Your task to perform on an android device: install app "Nova Launcher" Image 0: 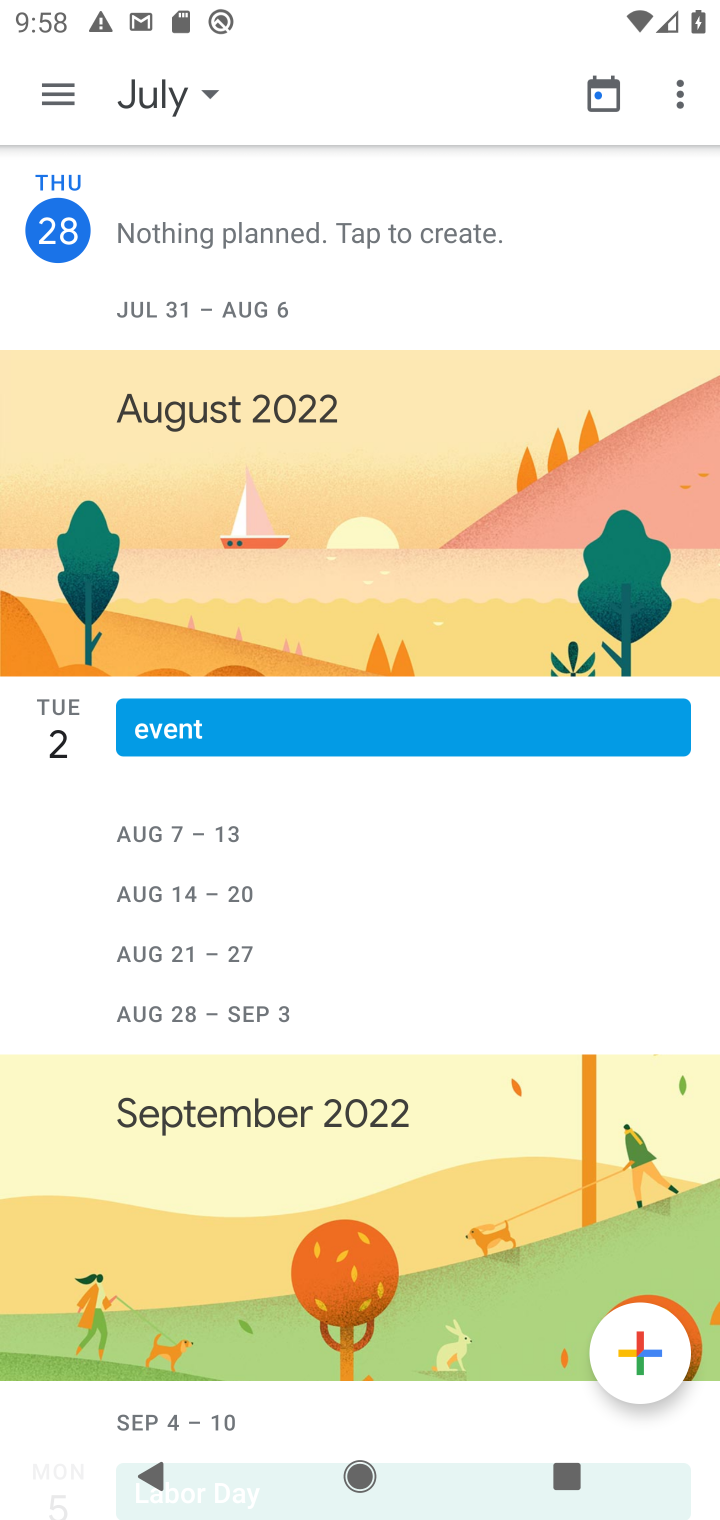
Step 0: press home button
Your task to perform on an android device: install app "Nova Launcher" Image 1: 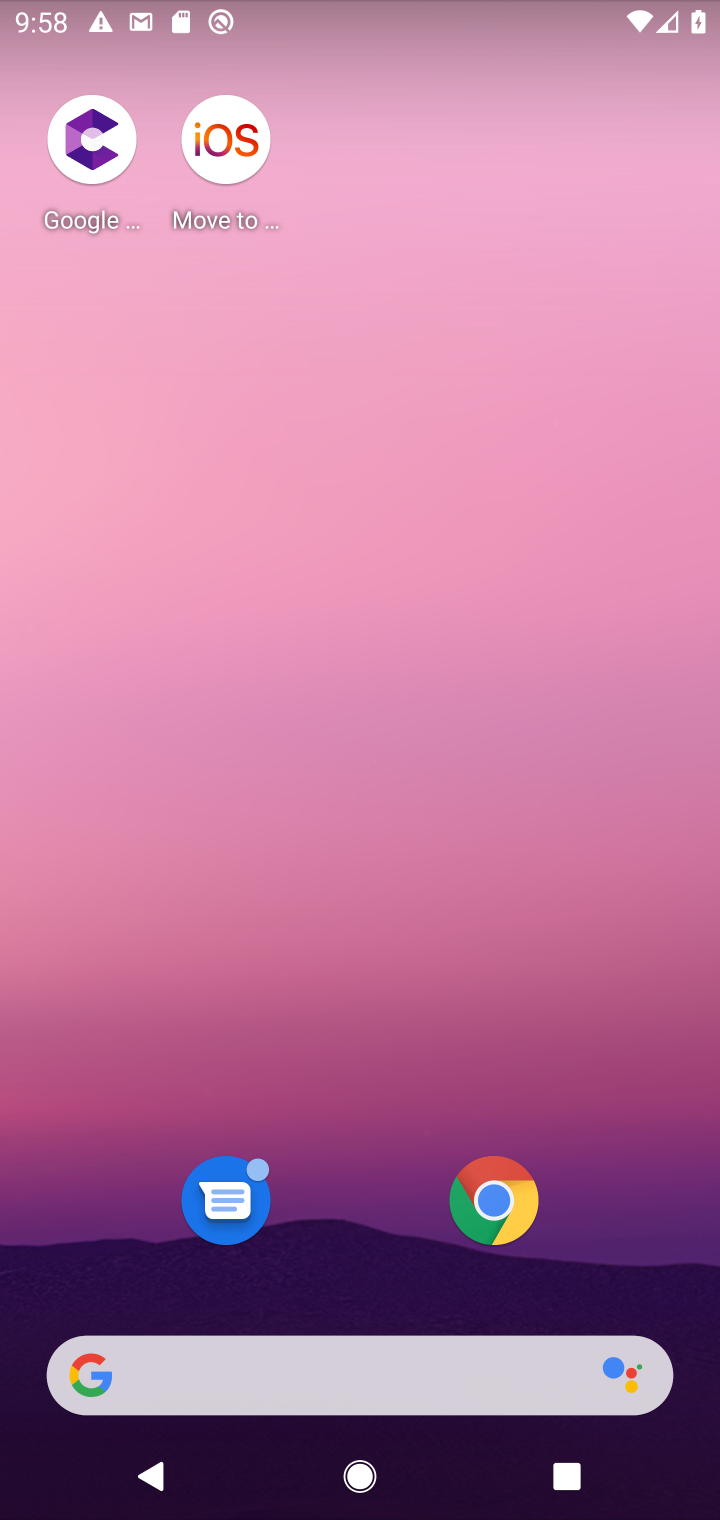
Step 1: press home button
Your task to perform on an android device: install app "Nova Launcher" Image 2: 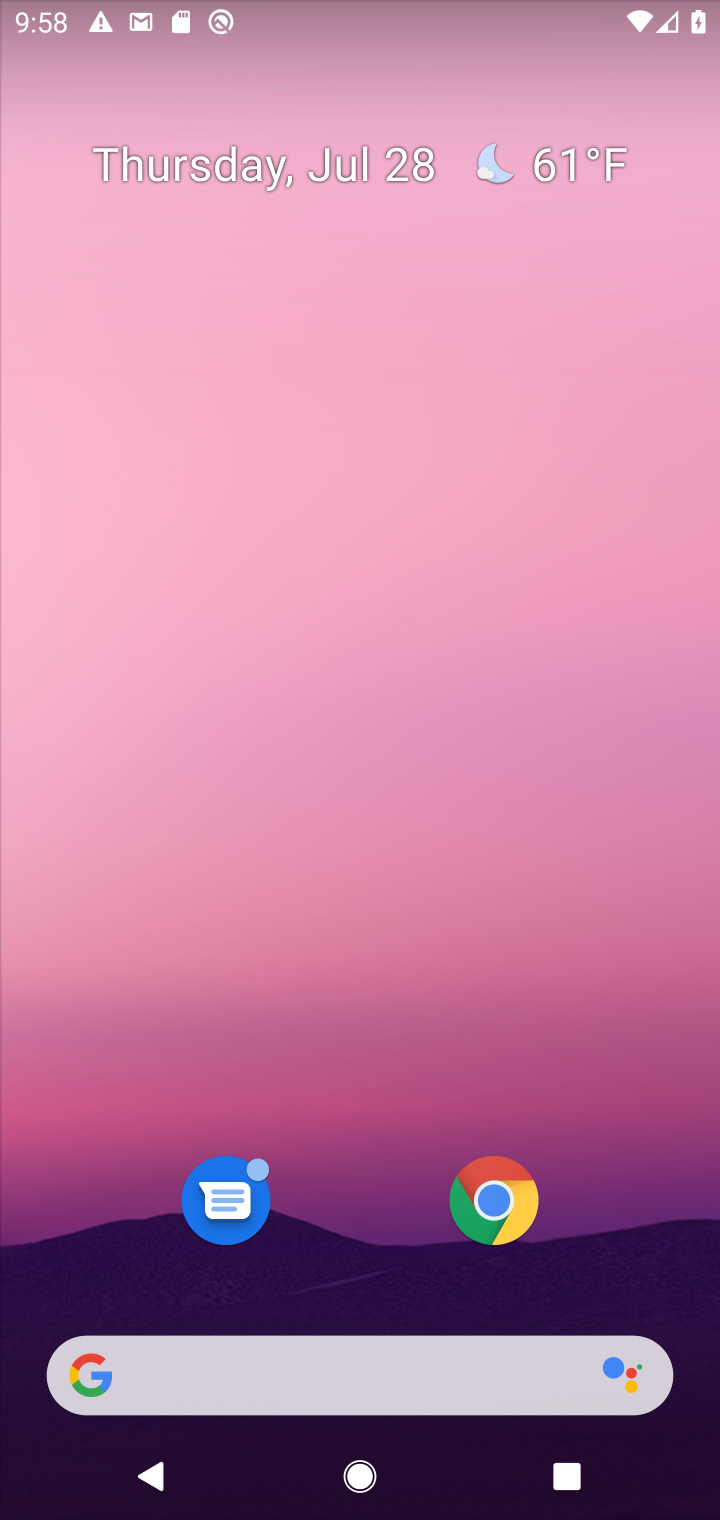
Step 2: click (500, 1215)
Your task to perform on an android device: install app "Nova Launcher" Image 3: 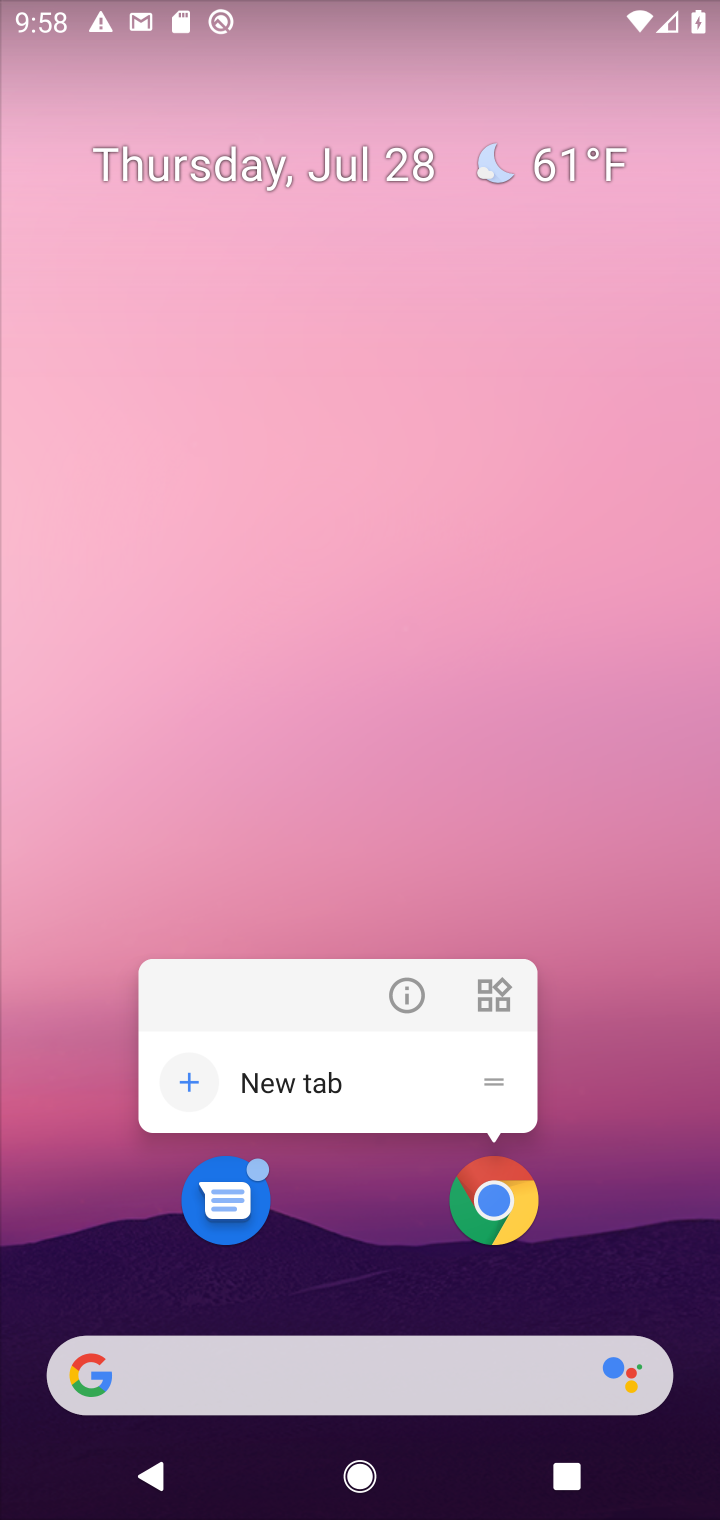
Step 3: press home button
Your task to perform on an android device: install app "Nova Launcher" Image 4: 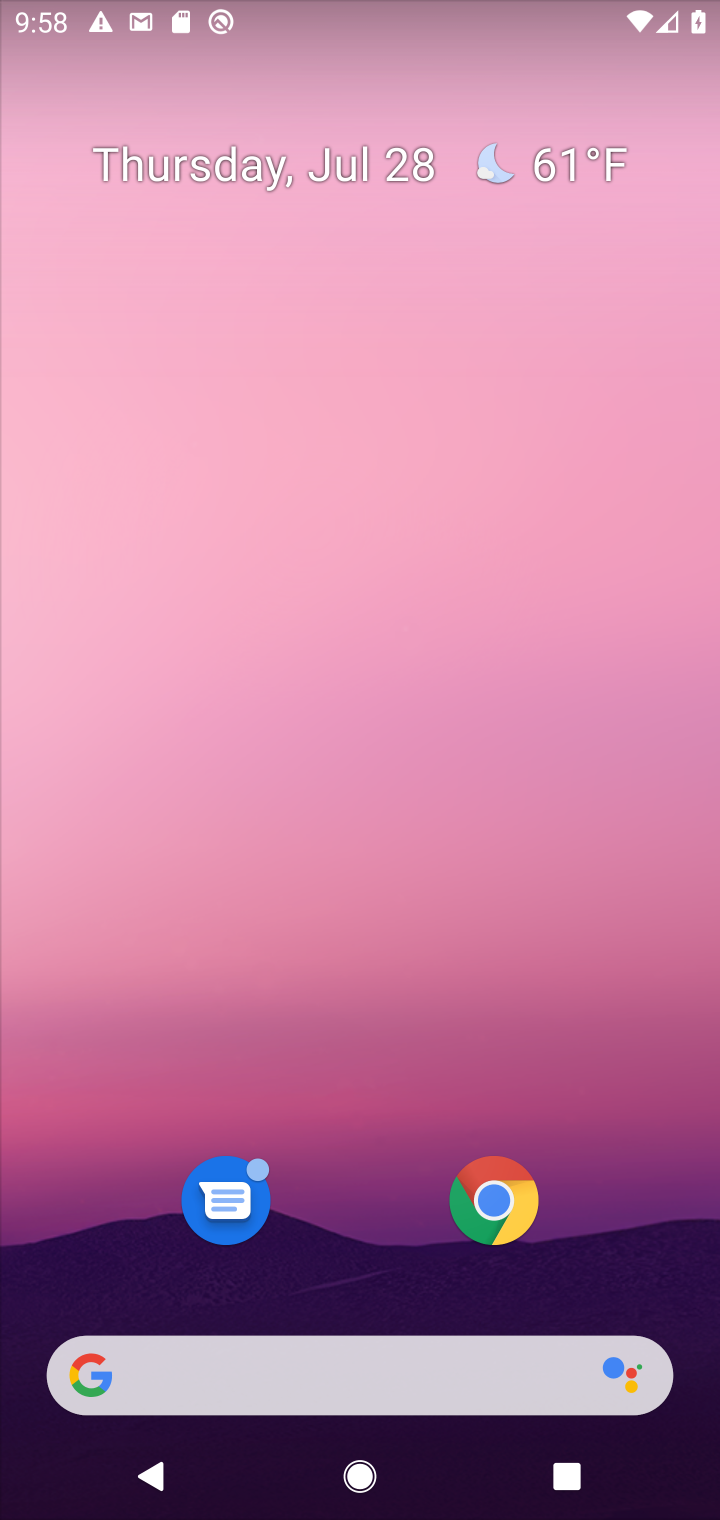
Step 4: drag from (585, 397) to (613, 121)
Your task to perform on an android device: install app "Nova Launcher" Image 5: 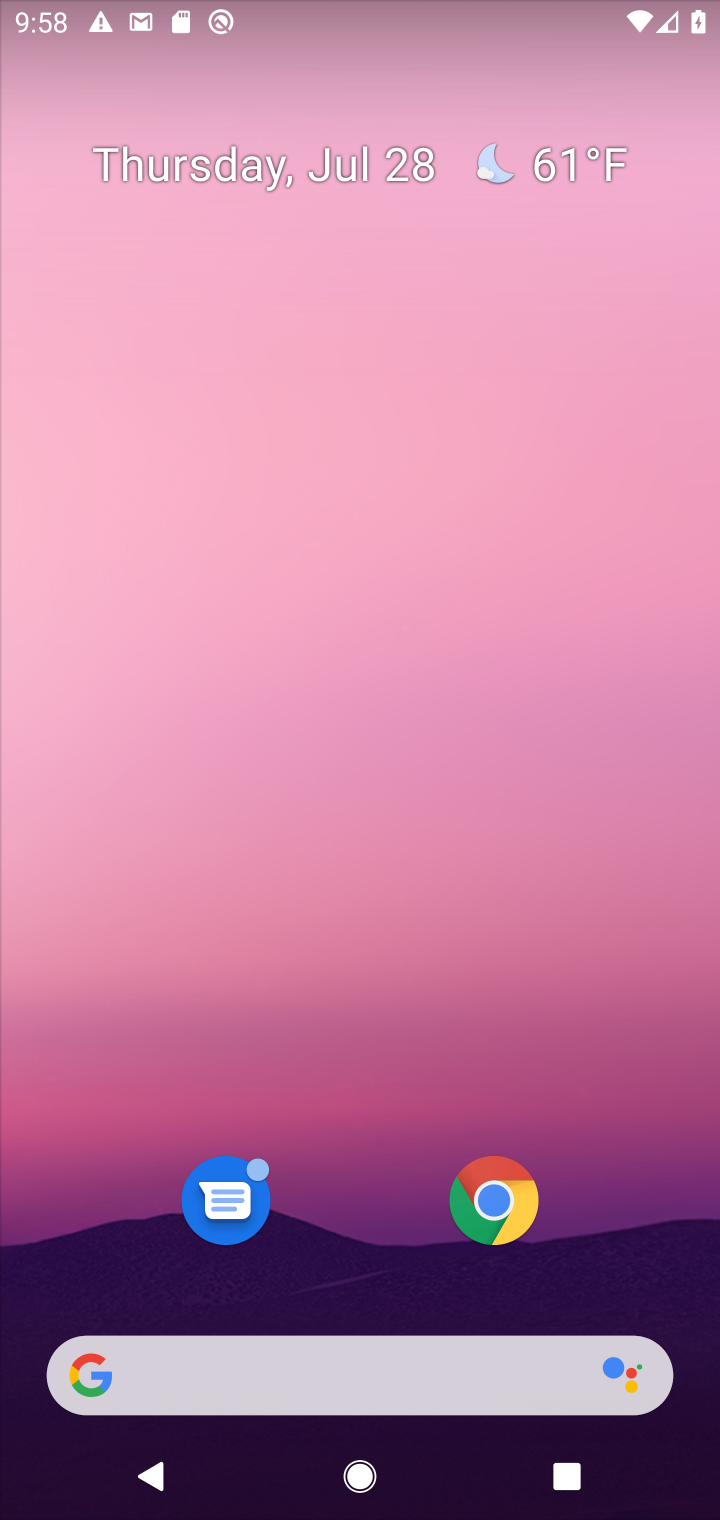
Step 5: drag from (380, 1339) to (501, 159)
Your task to perform on an android device: install app "Nova Launcher" Image 6: 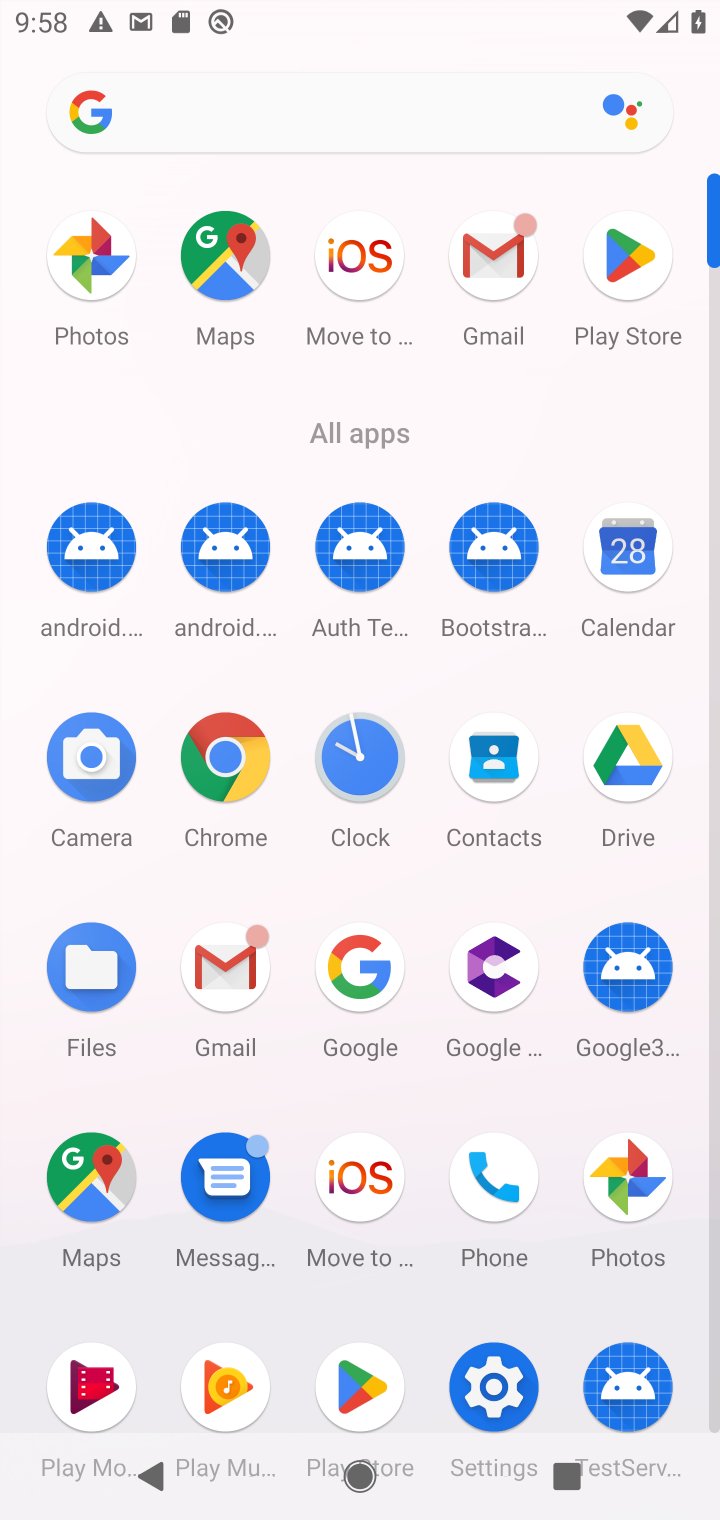
Step 6: click (627, 260)
Your task to perform on an android device: install app "Nova Launcher" Image 7: 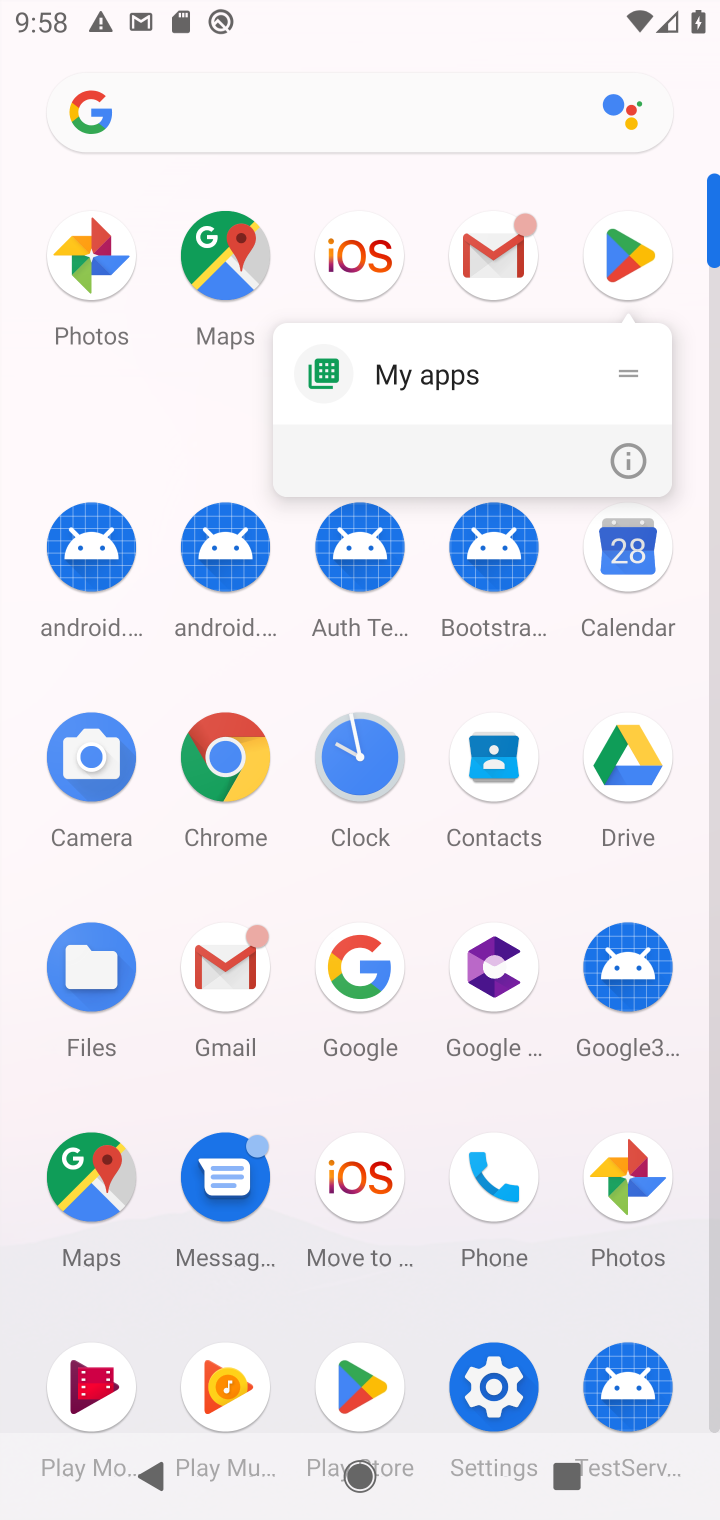
Step 7: click (627, 263)
Your task to perform on an android device: install app "Nova Launcher" Image 8: 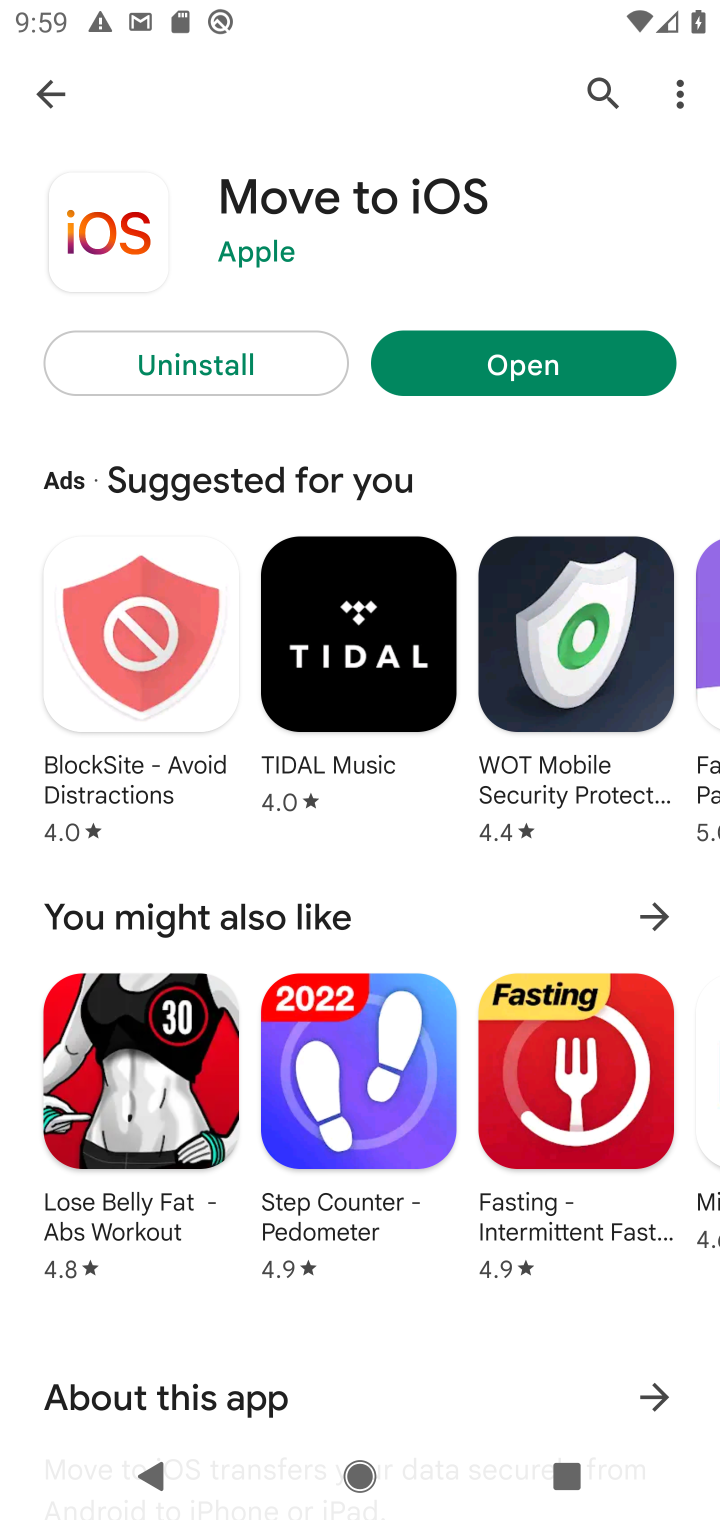
Step 8: click (38, 94)
Your task to perform on an android device: install app "Nova Launcher" Image 9: 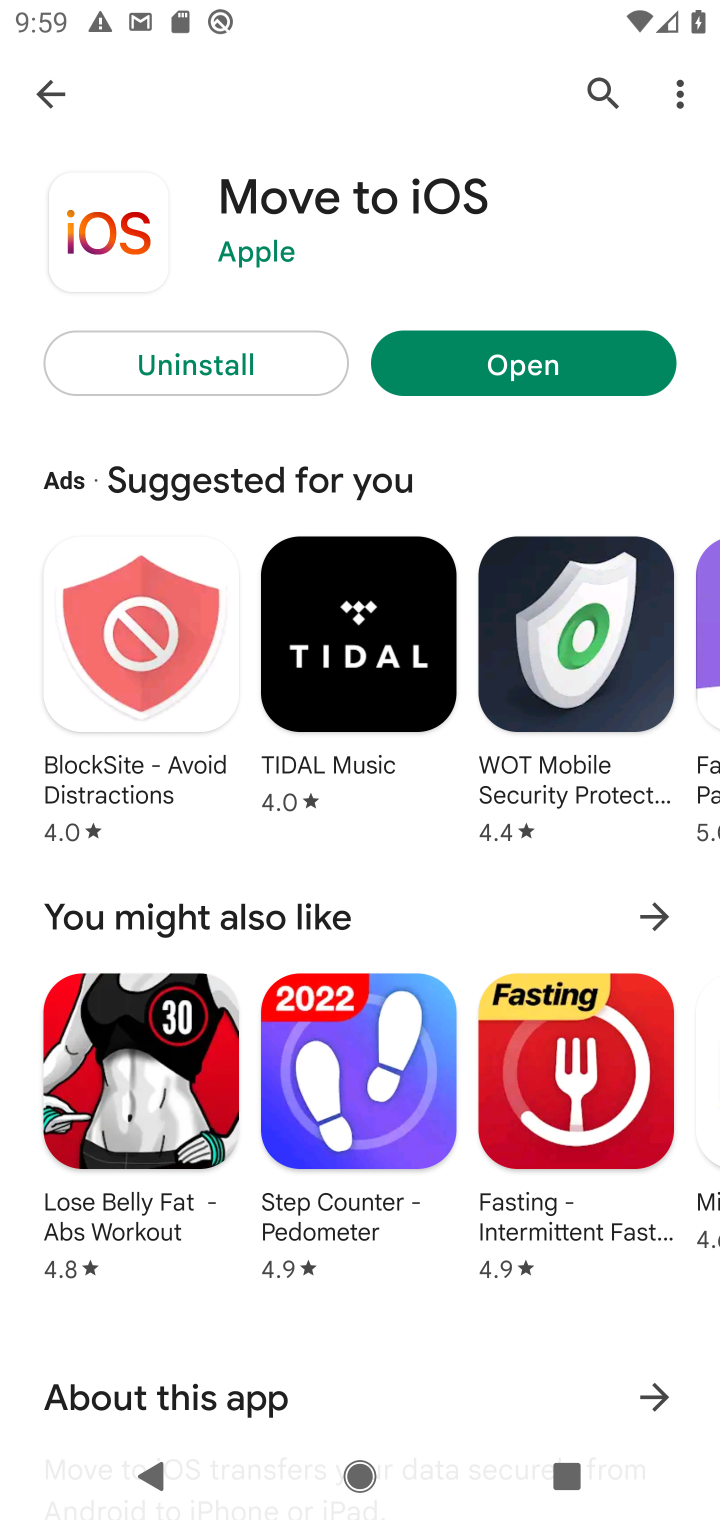
Step 9: click (43, 92)
Your task to perform on an android device: install app "Nova Launcher" Image 10: 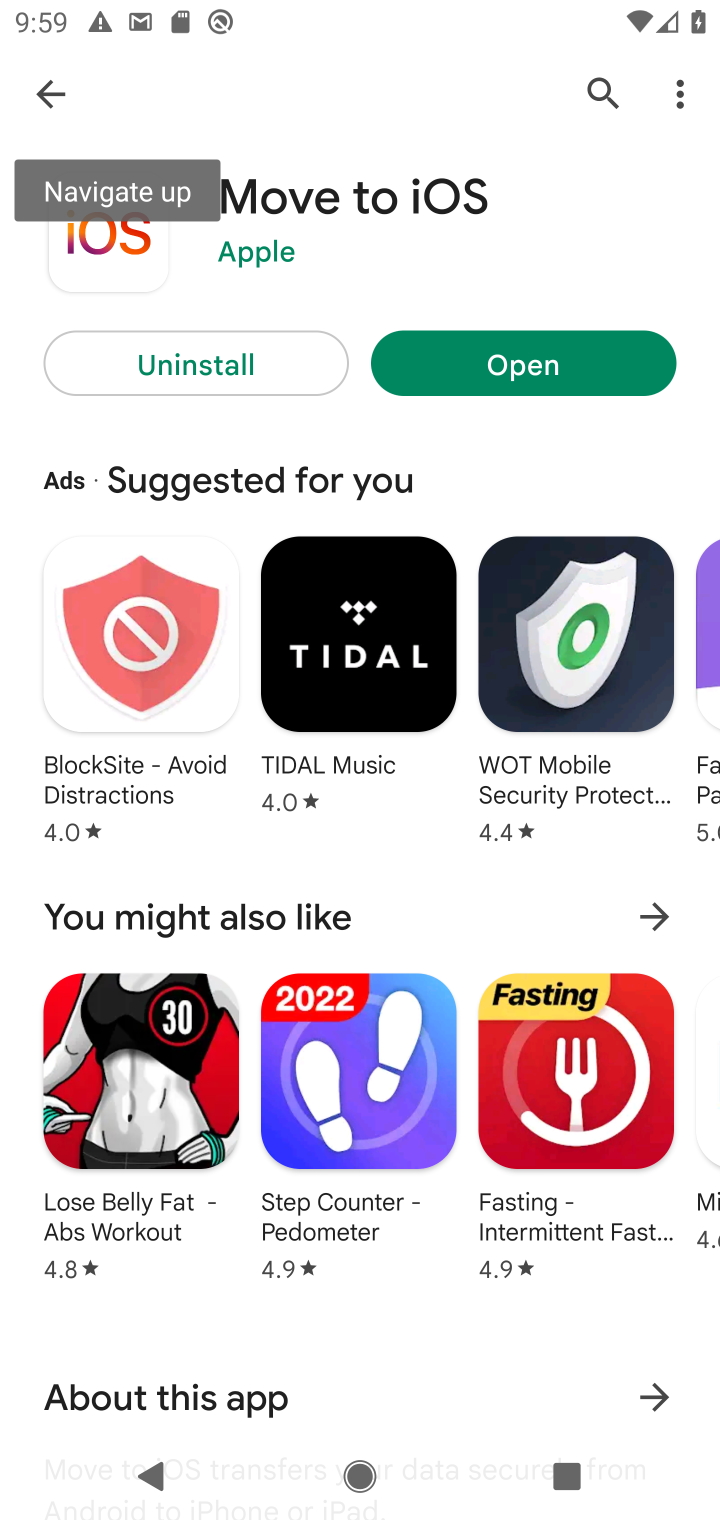
Step 10: click (594, 83)
Your task to perform on an android device: install app "Nova Launcher" Image 11: 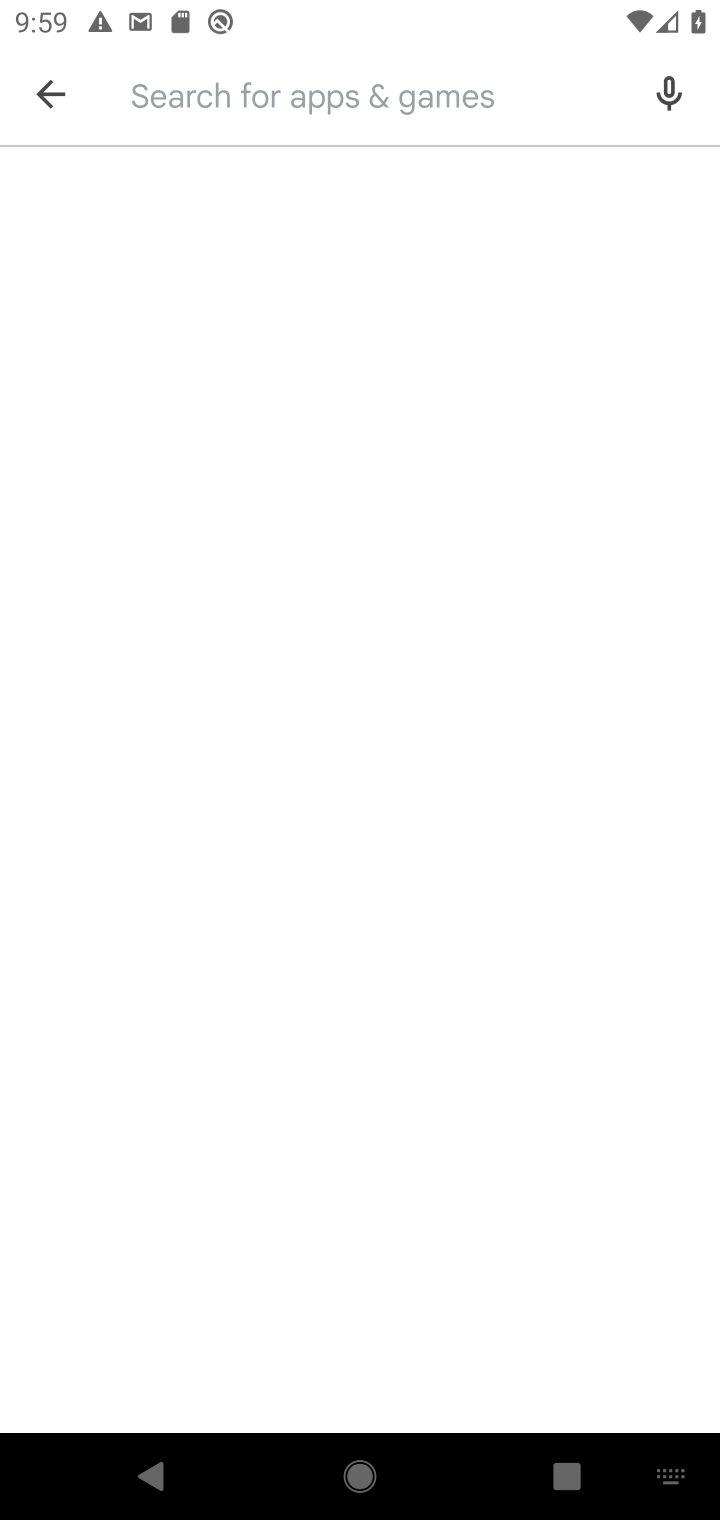
Step 11: type "Nova Launcher"
Your task to perform on an android device: install app "Nova Launcher" Image 12: 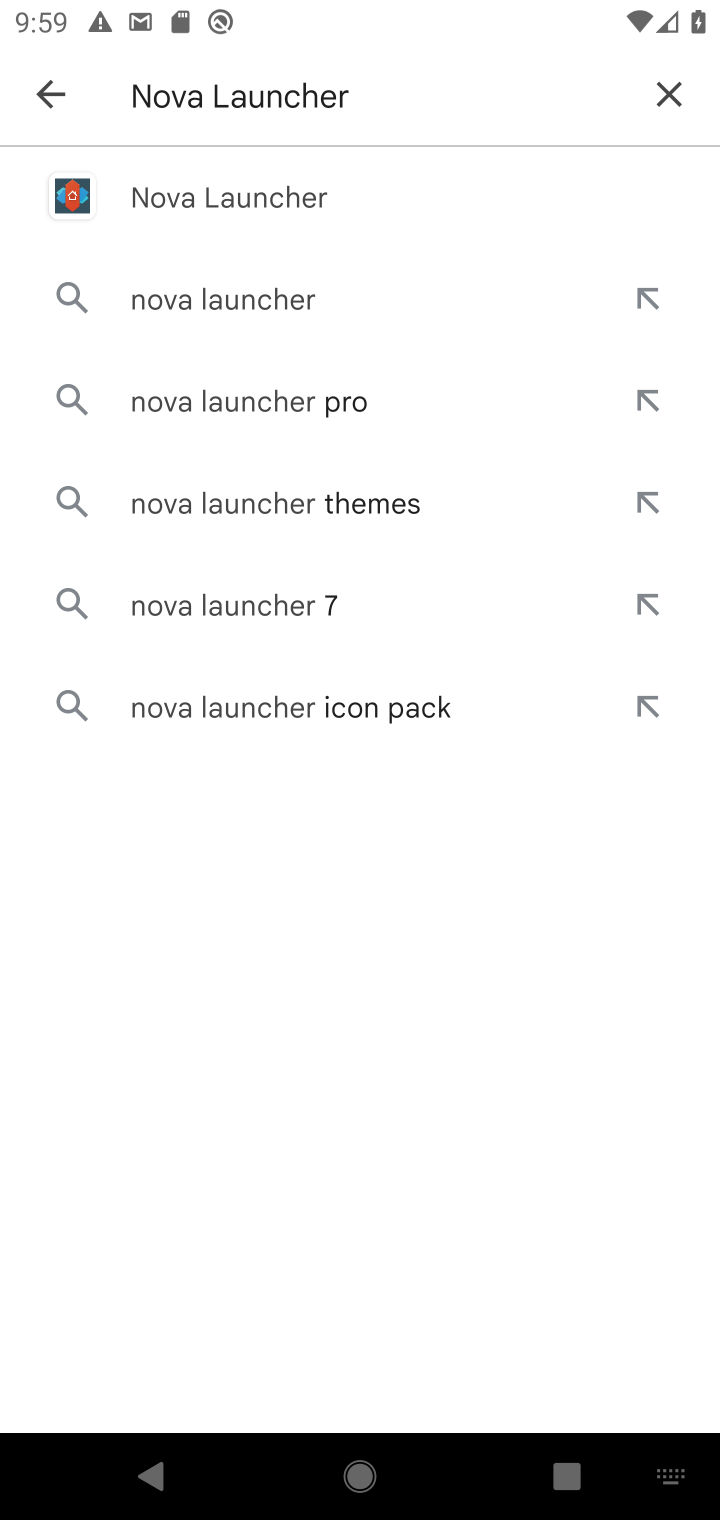
Step 12: click (288, 205)
Your task to perform on an android device: install app "Nova Launcher" Image 13: 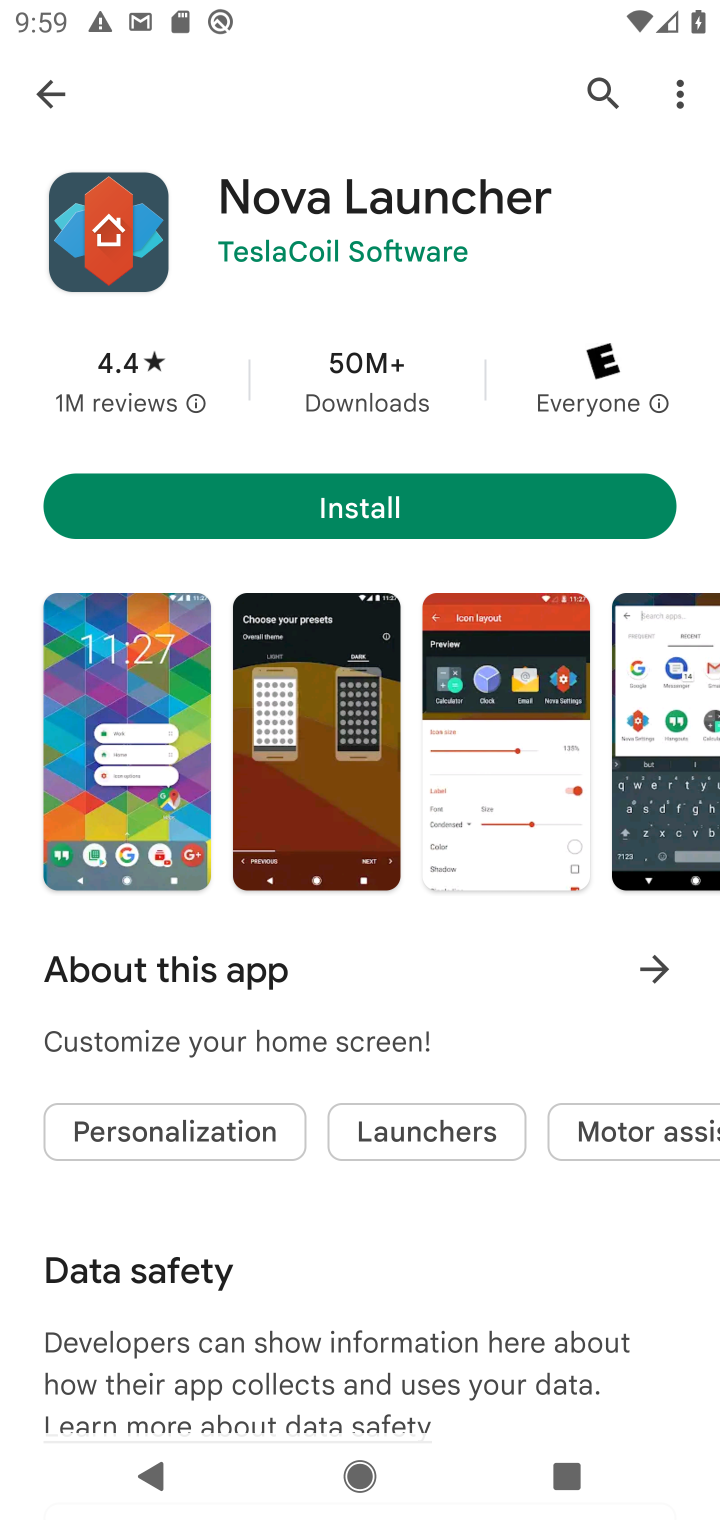
Step 13: click (312, 497)
Your task to perform on an android device: install app "Nova Launcher" Image 14: 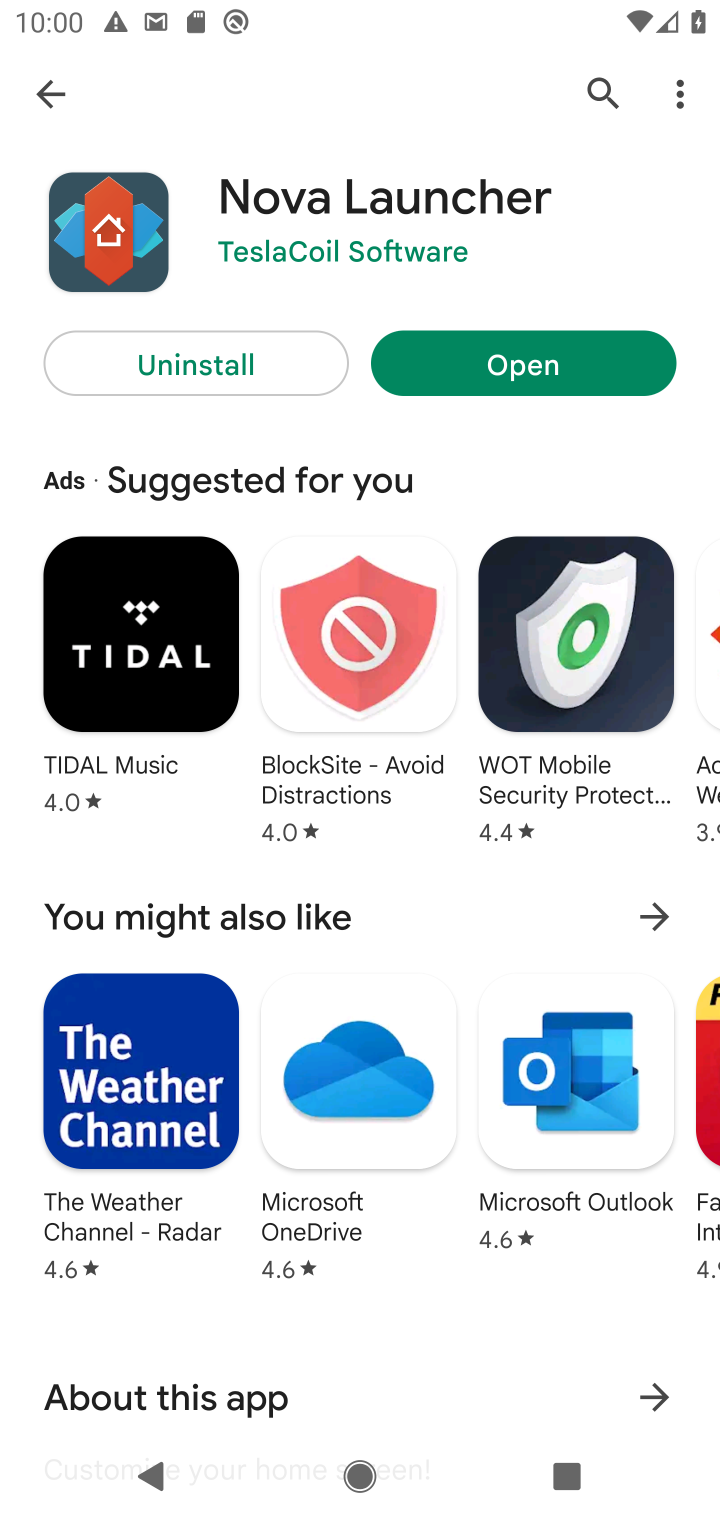
Step 14: task complete